Your task to perform on an android device: toggle javascript in the chrome app Image 0: 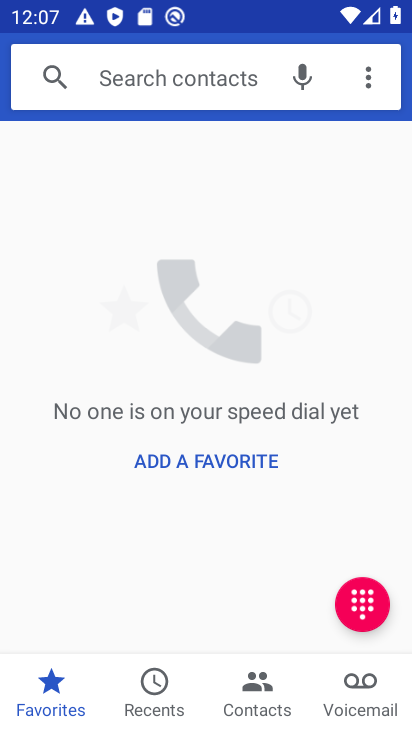
Step 0: press home button
Your task to perform on an android device: toggle javascript in the chrome app Image 1: 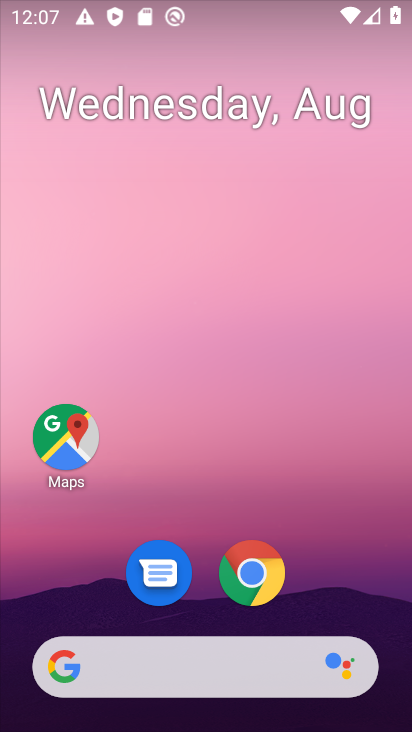
Step 1: drag from (241, 649) to (259, 21)
Your task to perform on an android device: toggle javascript in the chrome app Image 2: 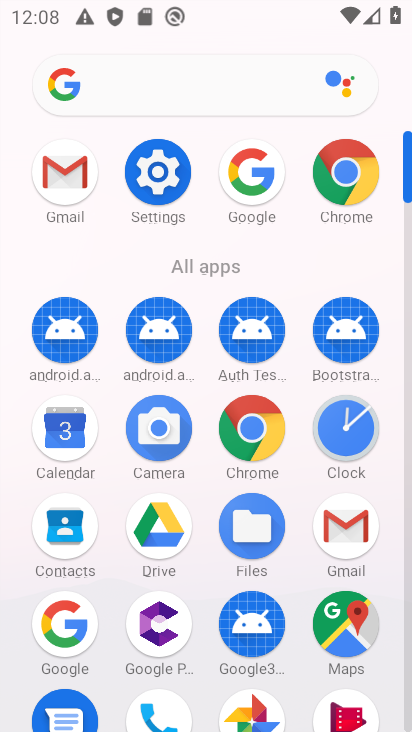
Step 2: click (323, 161)
Your task to perform on an android device: toggle javascript in the chrome app Image 3: 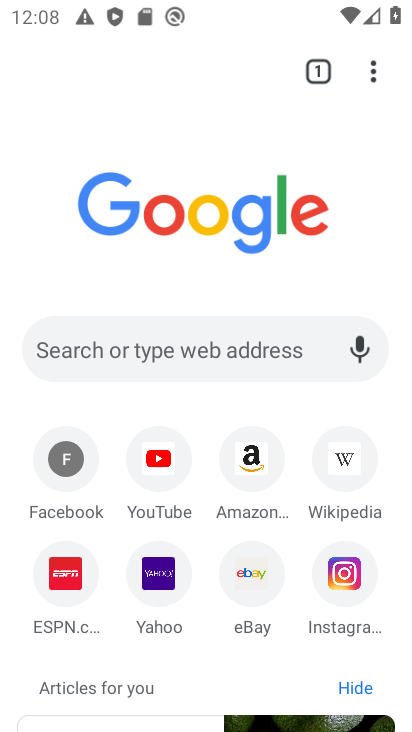
Step 3: click (374, 85)
Your task to perform on an android device: toggle javascript in the chrome app Image 4: 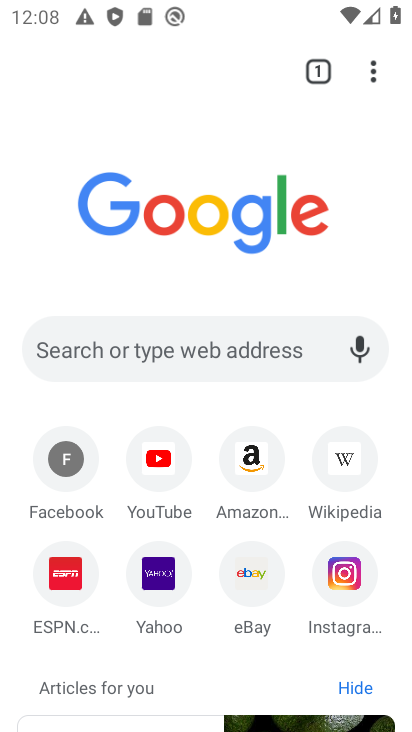
Step 4: click (372, 68)
Your task to perform on an android device: toggle javascript in the chrome app Image 5: 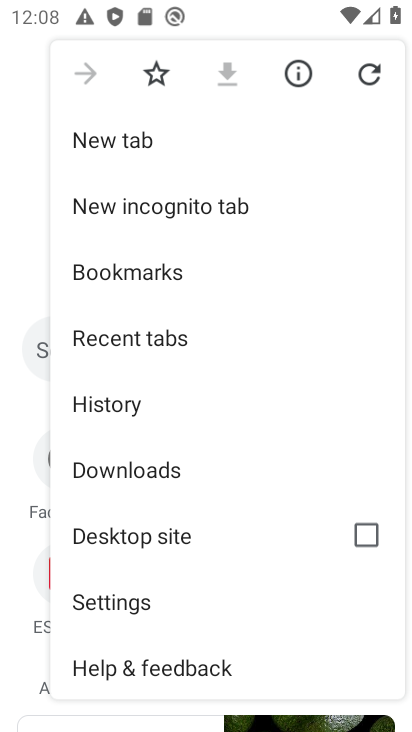
Step 5: click (86, 605)
Your task to perform on an android device: toggle javascript in the chrome app Image 6: 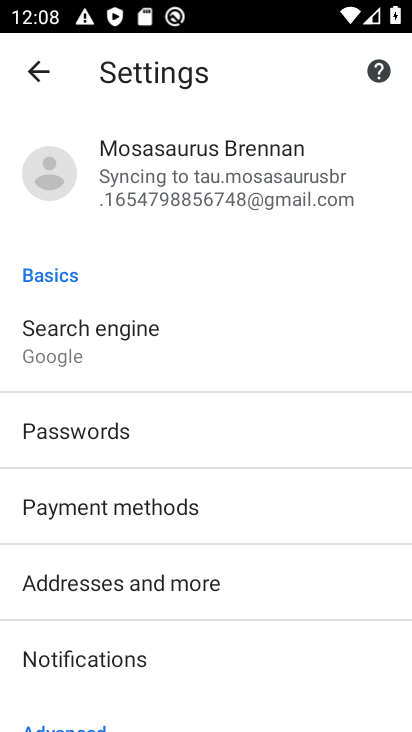
Step 6: drag from (208, 617) to (346, 38)
Your task to perform on an android device: toggle javascript in the chrome app Image 7: 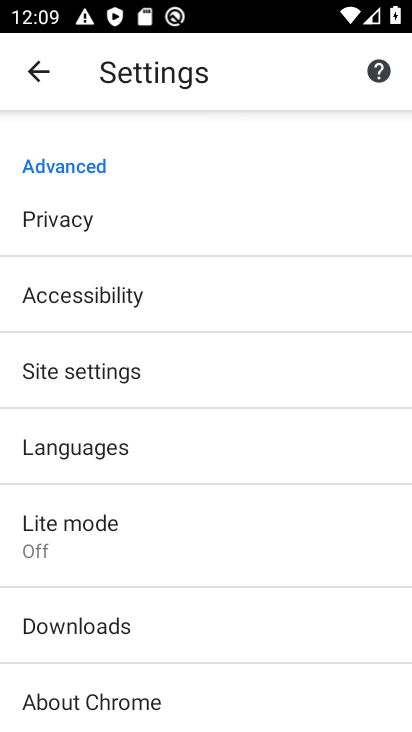
Step 7: click (58, 374)
Your task to perform on an android device: toggle javascript in the chrome app Image 8: 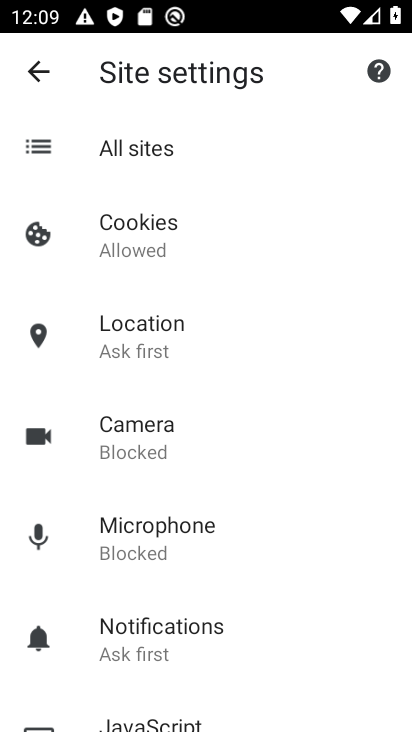
Step 8: drag from (165, 595) to (211, 304)
Your task to perform on an android device: toggle javascript in the chrome app Image 9: 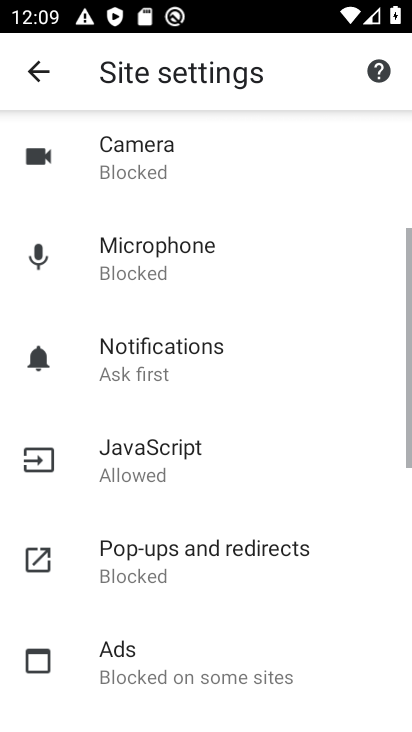
Step 9: click (193, 469)
Your task to perform on an android device: toggle javascript in the chrome app Image 10: 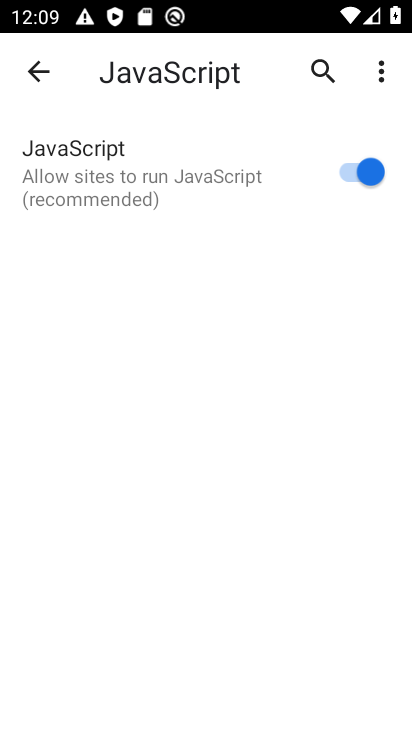
Step 10: click (362, 182)
Your task to perform on an android device: toggle javascript in the chrome app Image 11: 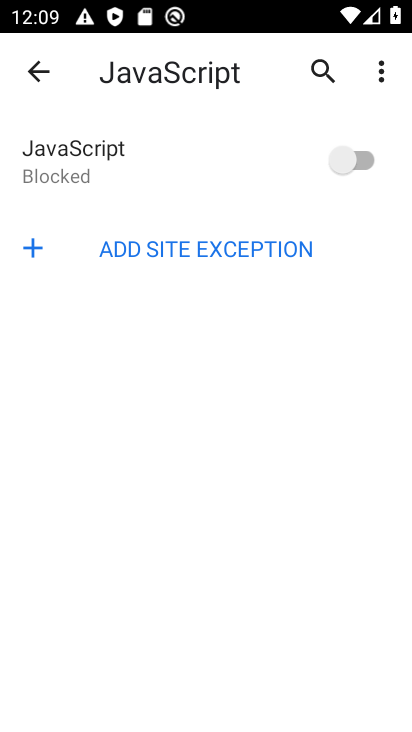
Step 11: task complete